Your task to perform on an android device: open chrome and create a bookmark for the current page Image 0: 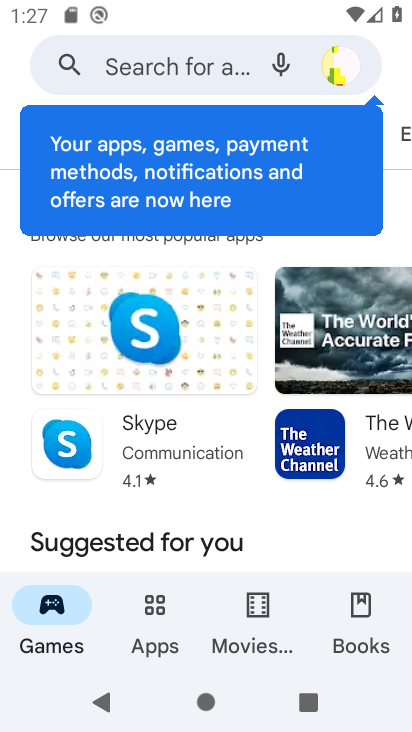
Step 0: press home button
Your task to perform on an android device: open chrome and create a bookmark for the current page Image 1: 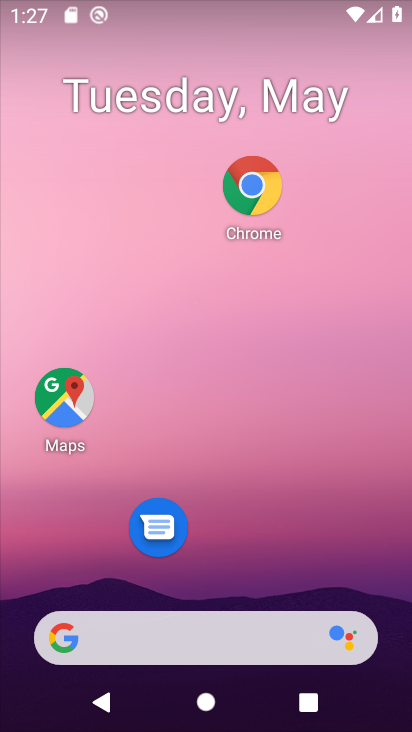
Step 1: drag from (292, 489) to (403, 66)
Your task to perform on an android device: open chrome and create a bookmark for the current page Image 2: 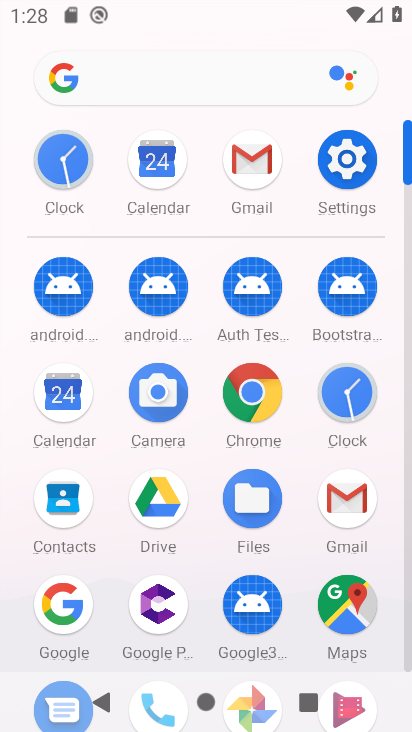
Step 2: click (260, 424)
Your task to perform on an android device: open chrome and create a bookmark for the current page Image 3: 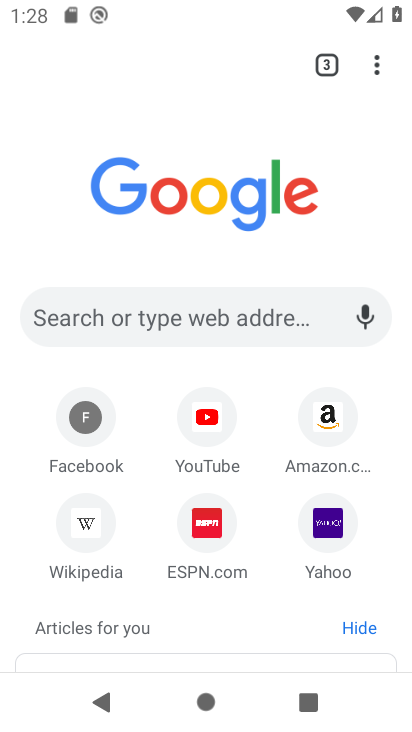
Step 3: click (378, 60)
Your task to perform on an android device: open chrome and create a bookmark for the current page Image 4: 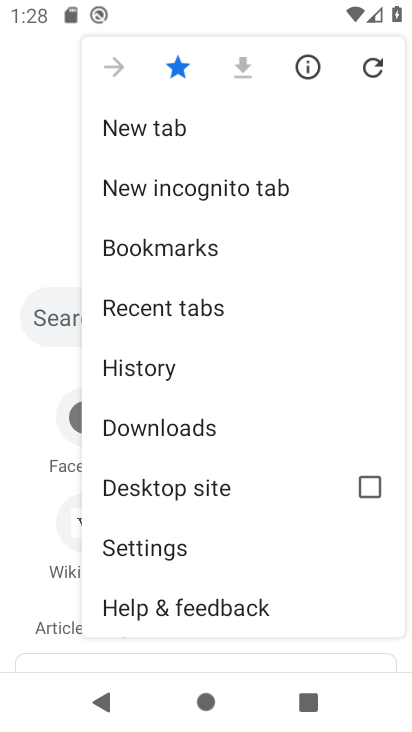
Step 4: task complete